Your task to perform on an android device: Show me productivity apps on the Play Store Image 0: 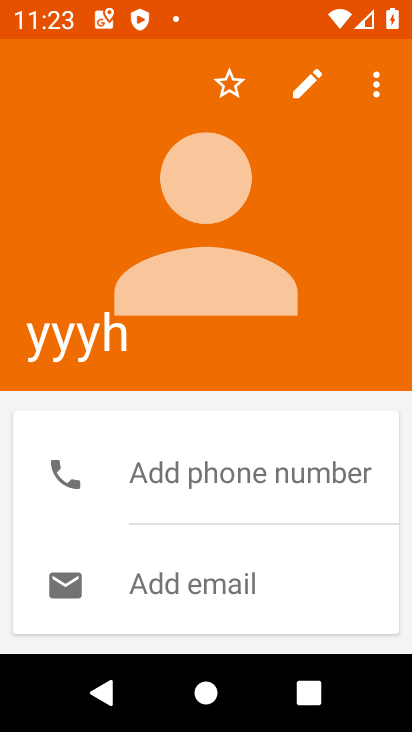
Step 0: drag from (196, 532) to (278, 70)
Your task to perform on an android device: Show me productivity apps on the Play Store Image 1: 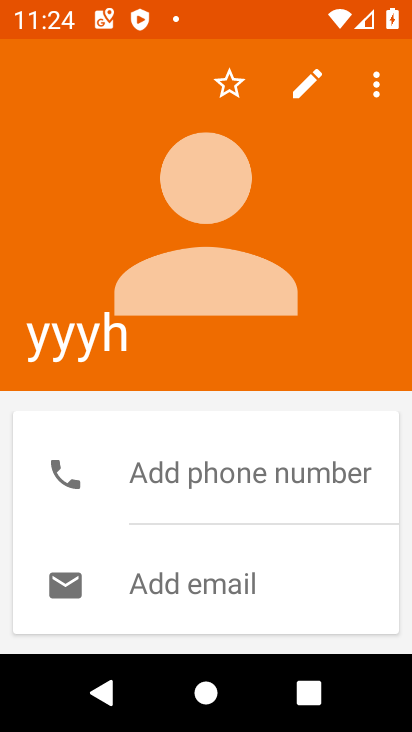
Step 1: press home button
Your task to perform on an android device: Show me productivity apps on the Play Store Image 2: 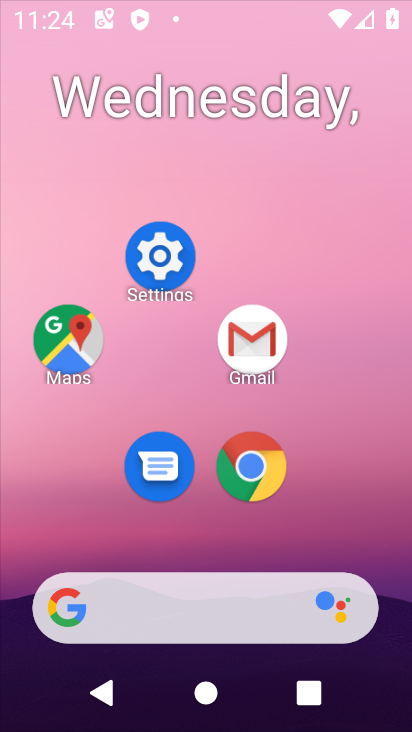
Step 2: drag from (195, 570) to (241, 122)
Your task to perform on an android device: Show me productivity apps on the Play Store Image 3: 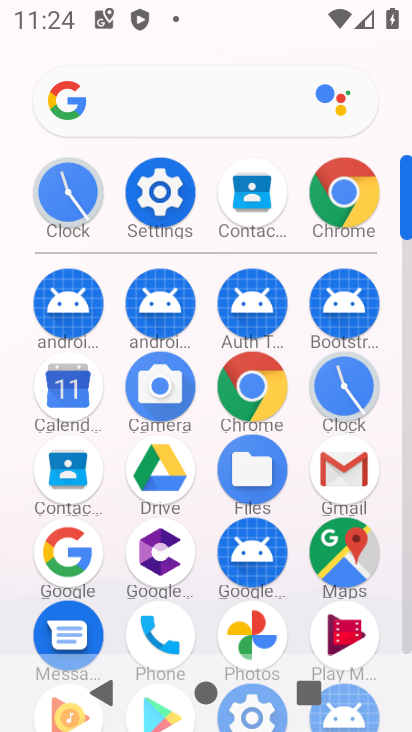
Step 3: drag from (215, 631) to (205, 240)
Your task to perform on an android device: Show me productivity apps on the Play Store Image 4: 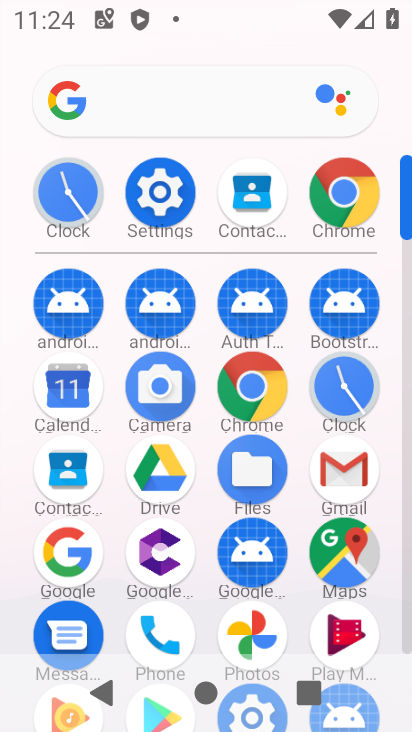
Step 4: click (222, 233)
Your task to perform on an android device: Show me productivity apps on the Play Store Image 5: 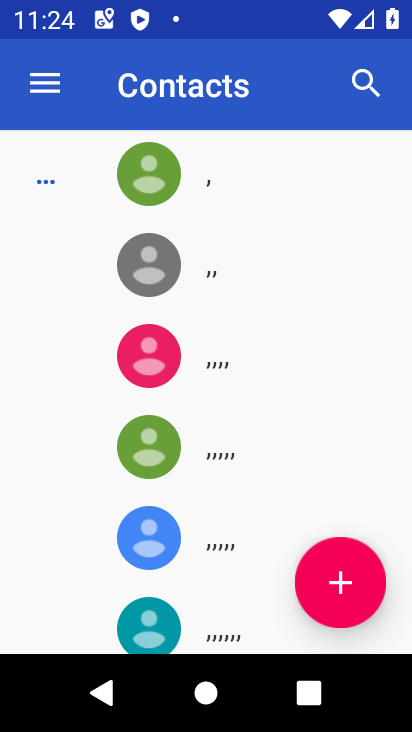
Step 5: drag from (224, 575) to (280, 192)
Your task to perform on an android device: Show me productivity apps on the Play Store Image 6: 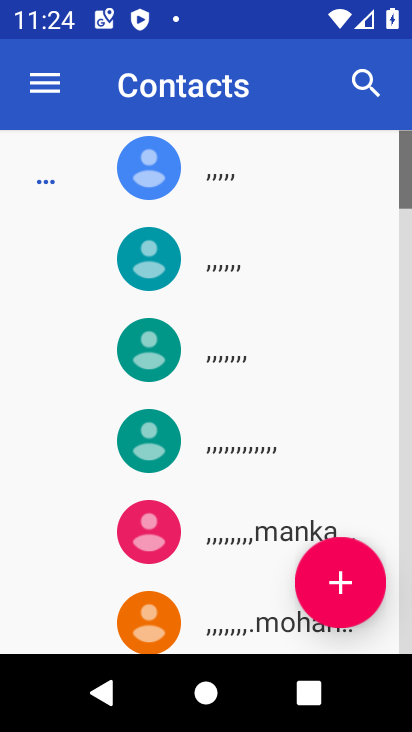
Step 6: press home button
Your task to perform on an android device: Show me productivity apps on the Play Store Image 7: 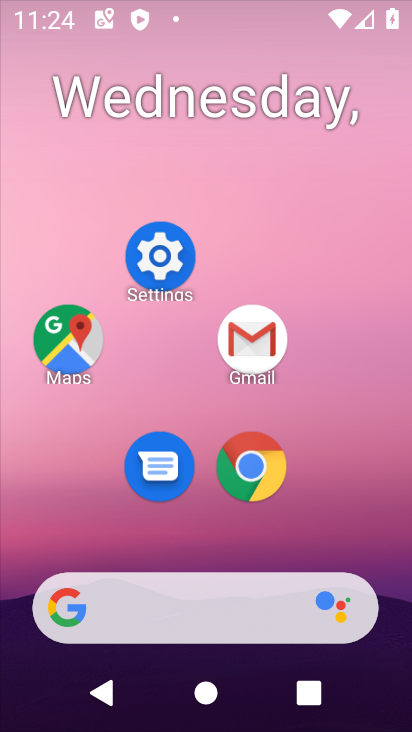
Step 7: drag from (222, 598) to (232, 94)
Your task to perform on an android device: Show me productivity apps on the Play Store Image 8: 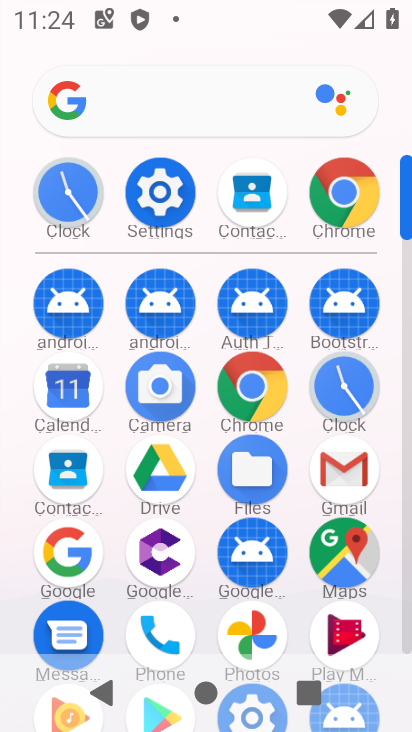
Step 8: drag from (198, 598) to (213, 205)
Your task to perform on an android device: Show me productivity apps on the Play Store Image 9: 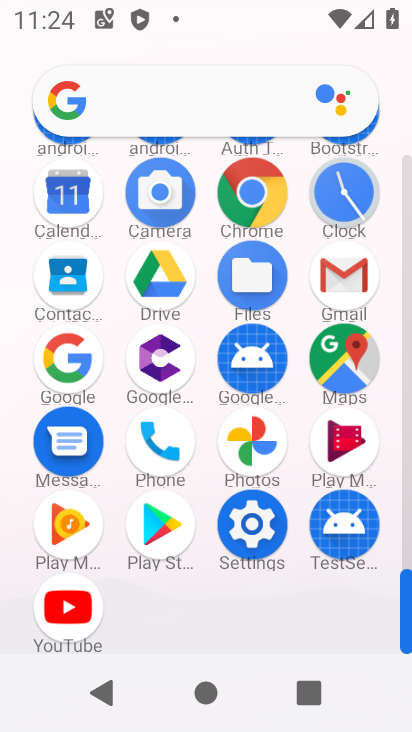
Step 9: click (155, 519)
Your task to perform on an android device: Show me productivity apps on the Play Store Image 10: 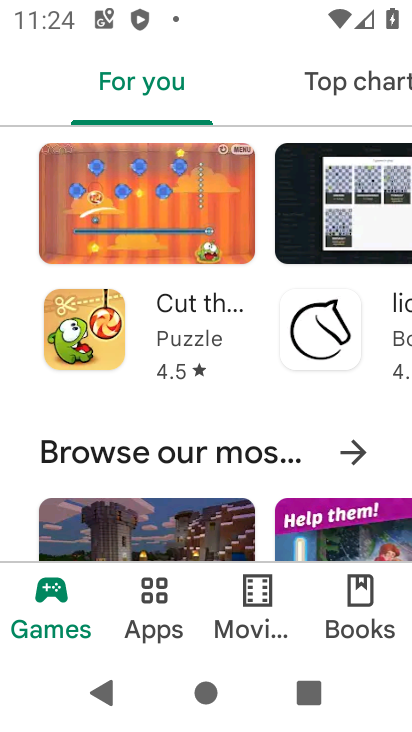
Step 10: drag from (252, 464) to (272, 262)
Your task to perform on an android device: Show me productivity apps on the Play Store Image 11: 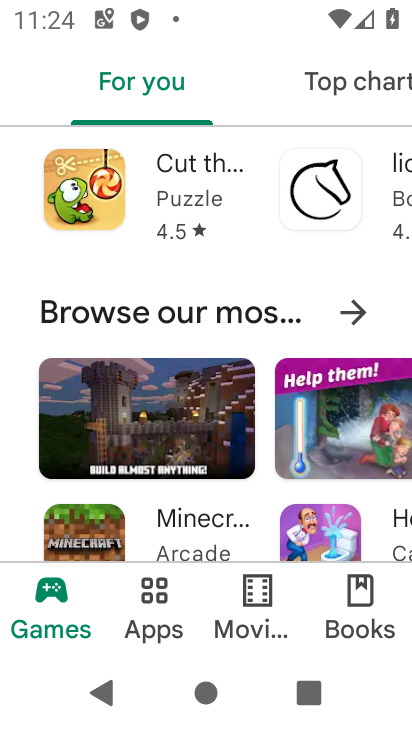
Step 11: drag from (244, 520) to (232, 68)
Your task to perform on an android device: Show me productivity apps on the Play Store Image 12: 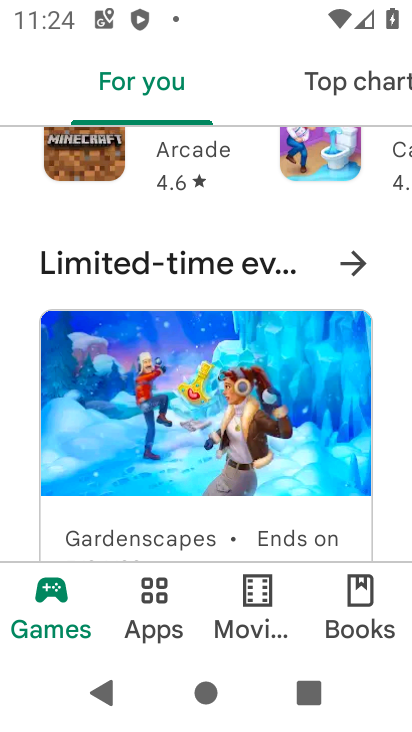
Step 12: drag from (230, 530) to (217, 122)
Your task to perform on an android device: Show me productivity apps on the Play Store Image 13: 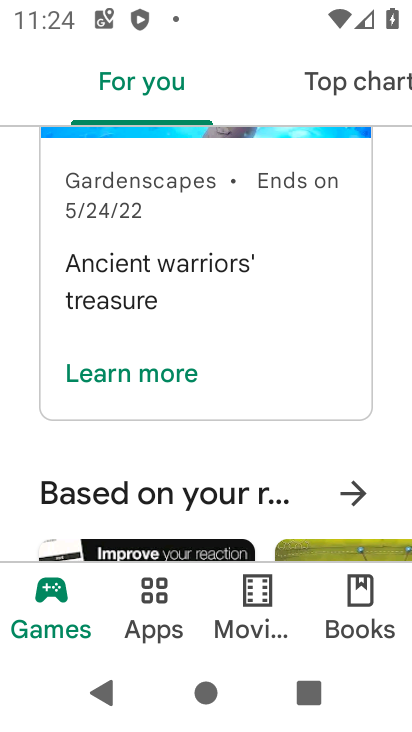
Step 13: drag from (219, 505) to (199, 84)
Your task to perform on an android device: Show me productivity apps on the Play Store Image 14: 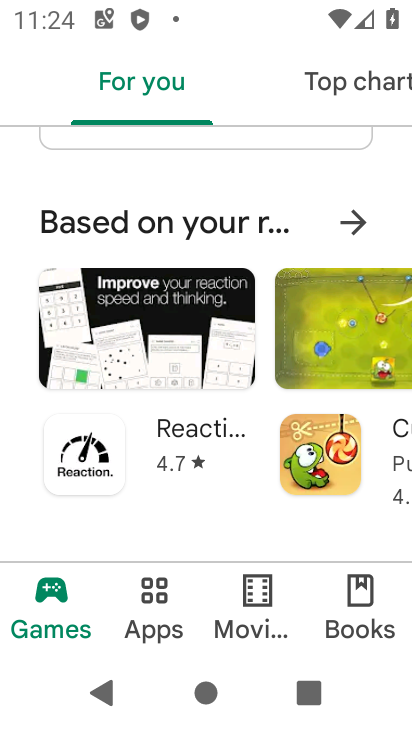
Step 14: drag from (308, 182) to (297, 557)
Your task to perform on an android device: Show me productivity apps on the Play Store Image 15: 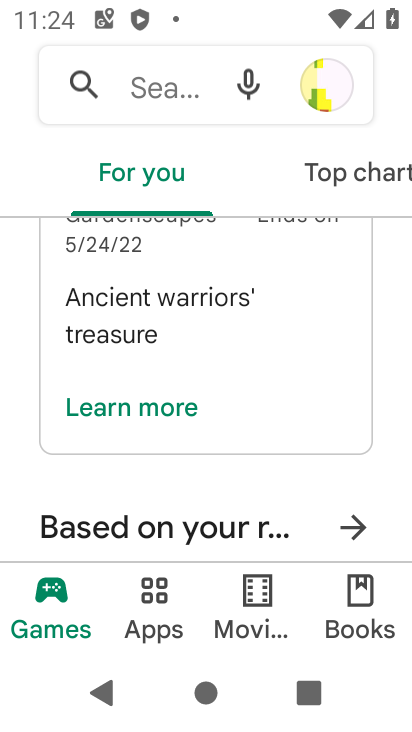
Step 15: click (329, 88)
Your task to perform on an android device: Show me productivity apps on the Play Store Image 16: 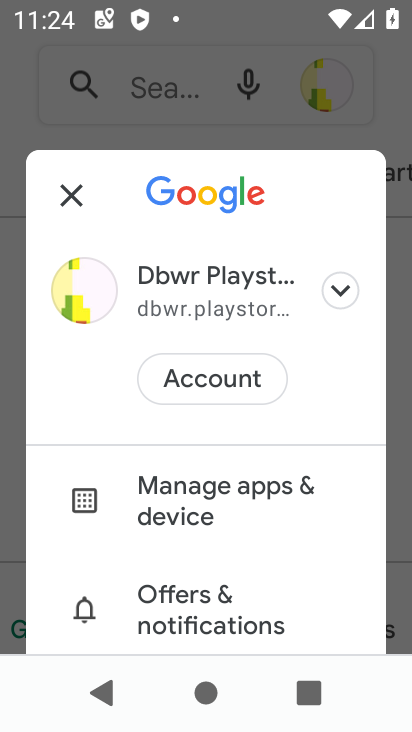
Step 16: drag from (215, 522) to (204, 244)
Your task to perform on an android device: Show me productivity apps on the Play Store Image 17: 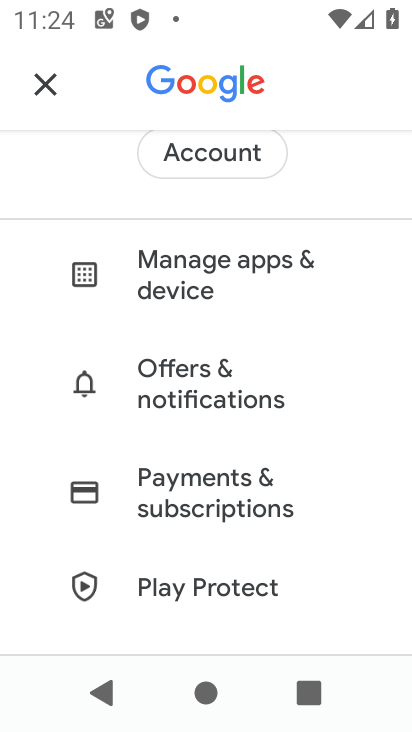
Step 17: click (59, 79)
Your task to perform on an android device: Show me productivity apps on the Play Store Image 18: 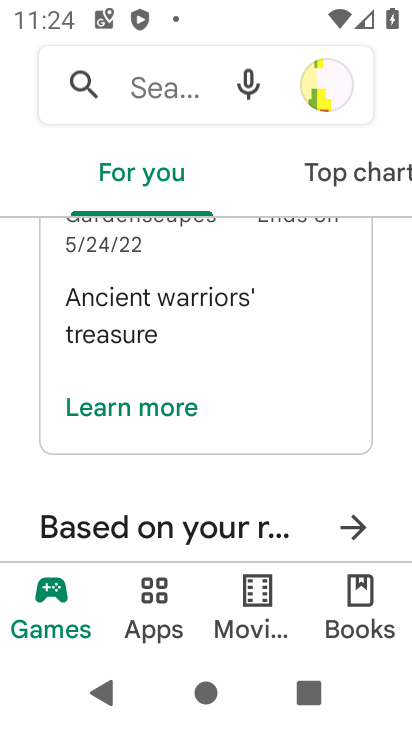
Step 18: task complete